Your task to perform on an android device: Go to Wikipedia Image 0: 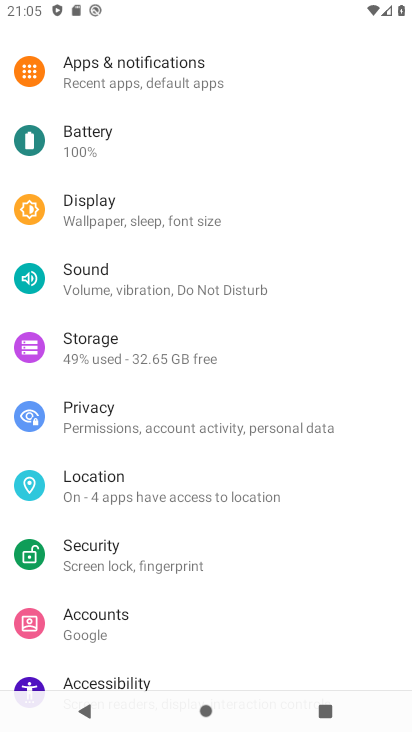
Step 0: press home button
Your task to perform on an android device: Go to Wikipedia Image 1: 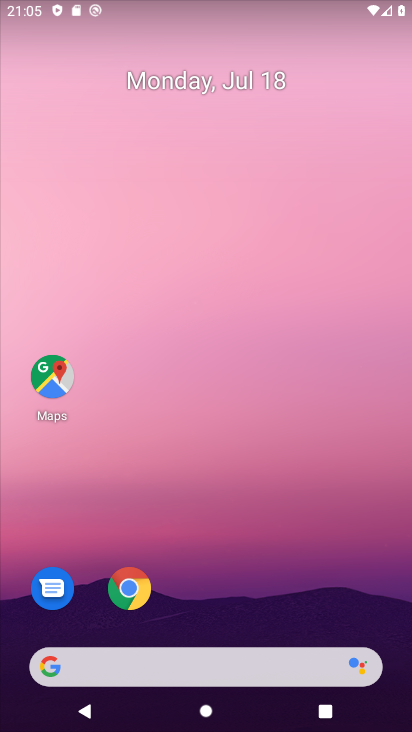
Step 1: click (131, 587)
Your task to perform on an android device: Go to Wikipedia Image 2: 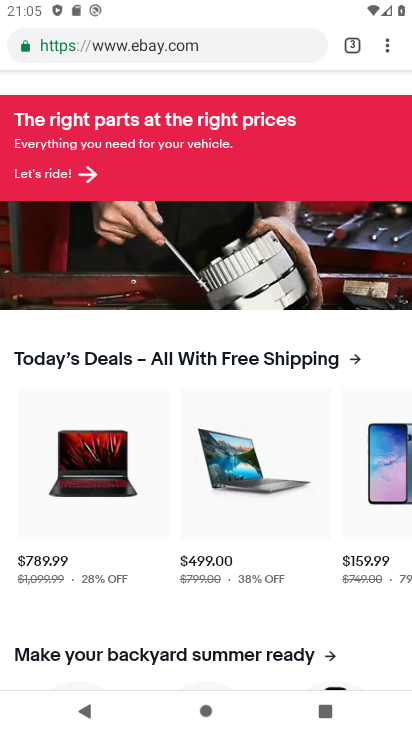
Step 2: drag from (386, 45) to (281, 86)
Your task to perform on an android device: Go to Wikipedia Image 3: 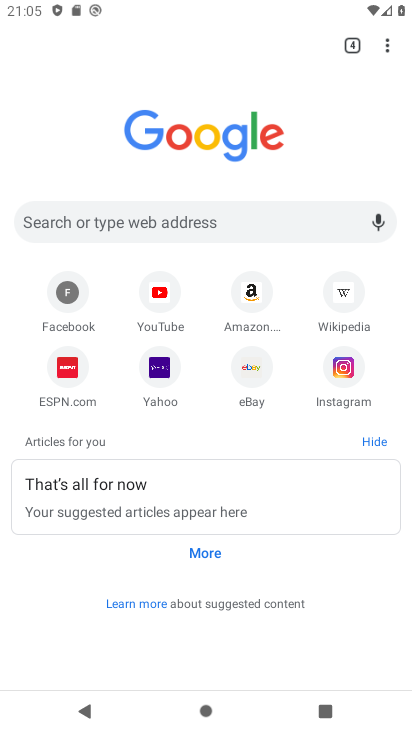
Step 3: click (345, 298)
Your task to perform on an android device: Go to Wikipedia Image 4: 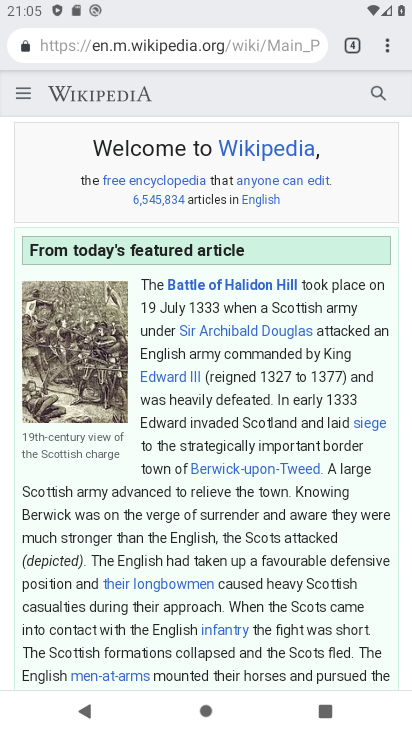
Step 4: task complete